Your task to perform on an android device: all mails in gmail Image 0: 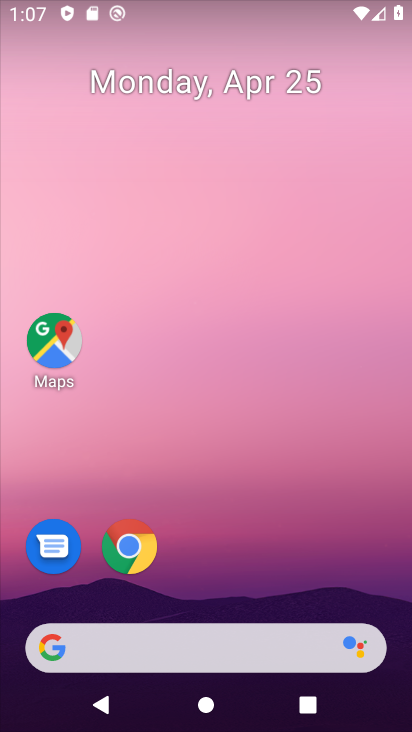
Step 0: drag from (232, 600) to (195, 5)
Your task to perform on an android device: all mails in gmail Image 1: 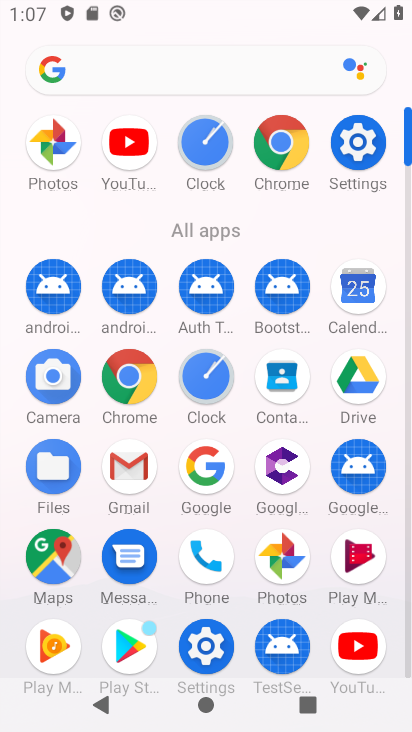
Step 1: click (119, 474)
Your task to perform on an android device: all mails in gmail Image 2: 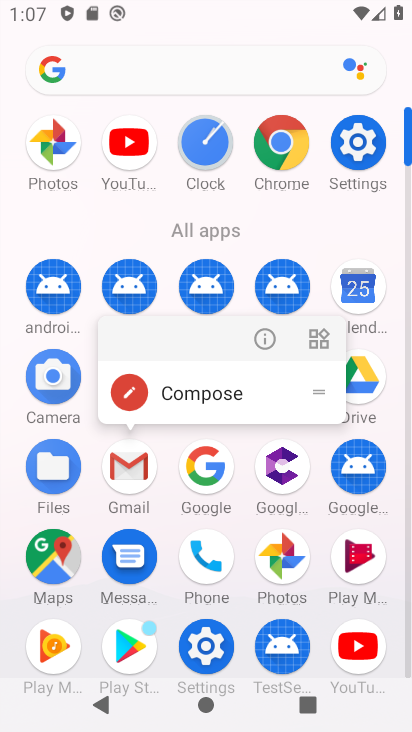
Step 2: click (137, 461)
Your task to perform on an android device: all mails in gmail Image 3: 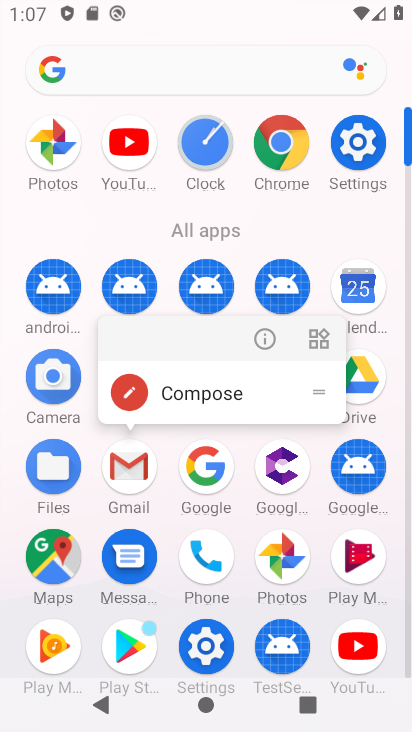
Step 3: click (125, 493)
Your task to perform on an android device: all mails in gmail Image 4: 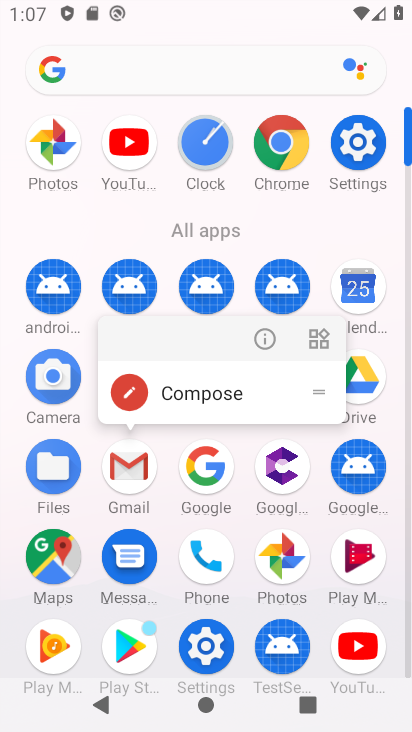
Step 4: click (126, 484)
Your task to perform on an android device: all mails in gmail Image 5: 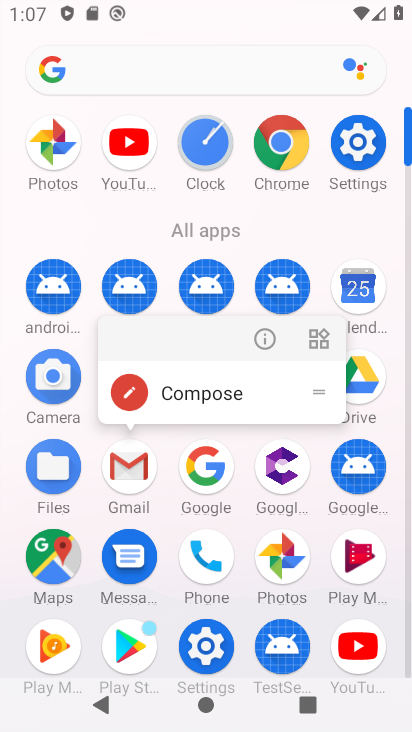
Step 5: click (129, 475)
Your task to perform on an android device: all mails in gmail Image 6: 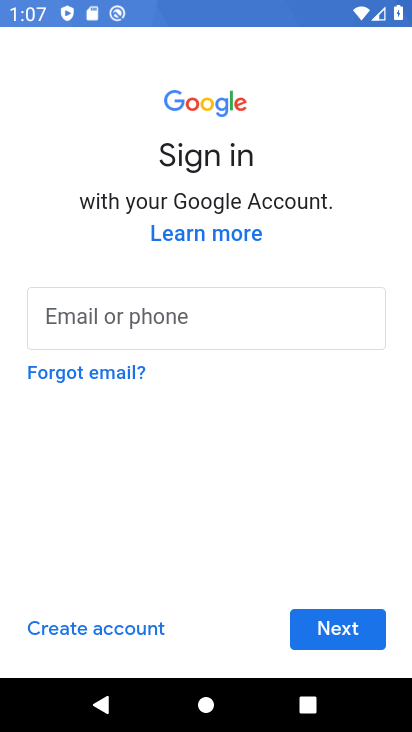
Step 6: click (310, 623)
Your task to perform on an android device: all mails in gmail Image 7: 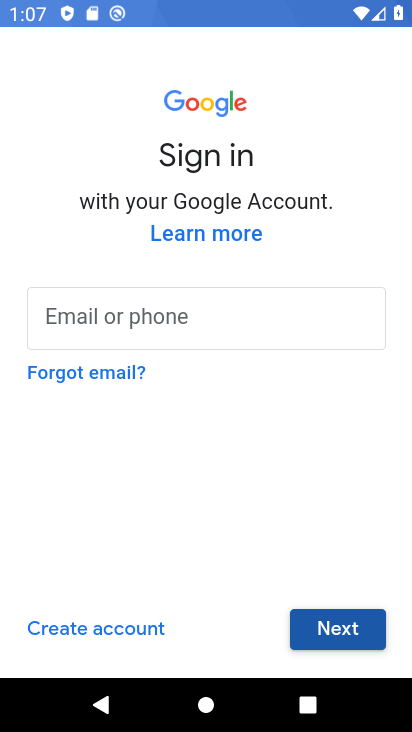
Step 7: click (103, 704)
Your task to perform on an android device: all mails in gmail Image 8: 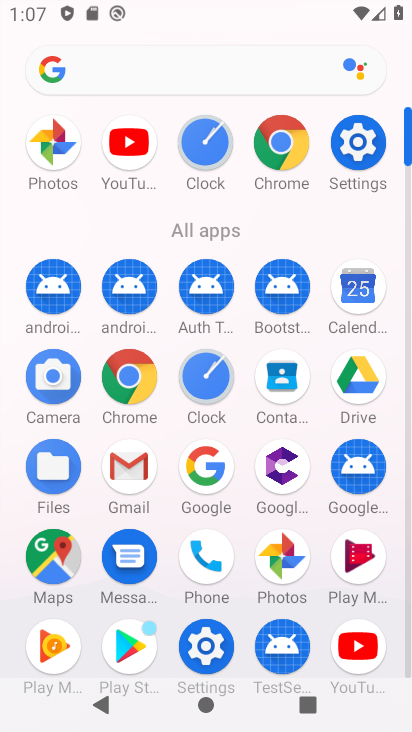
Step 8: click (145, 471)
Your task to perform on an android device: all mails in gmail Image 9: 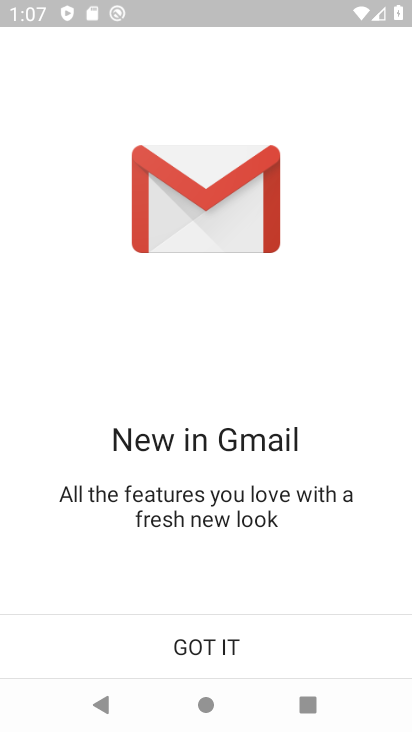
Step 9: click (167, 649)
Your task to perform on an android device: all mails in gmail Image 10: 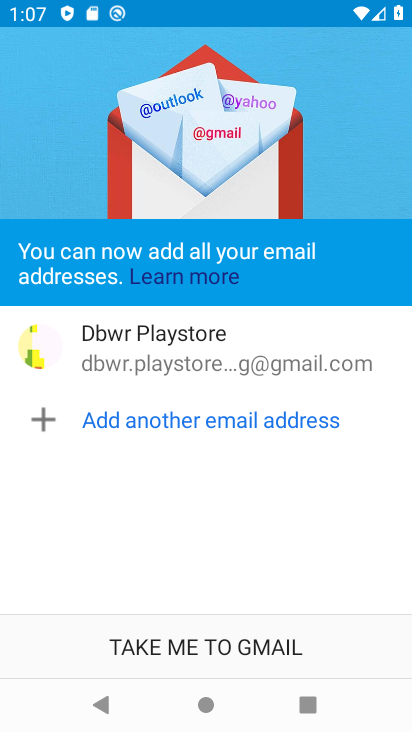
Step 10: click (166, 378)
Your task to perform on an android device: all mails in gmail Image 11: 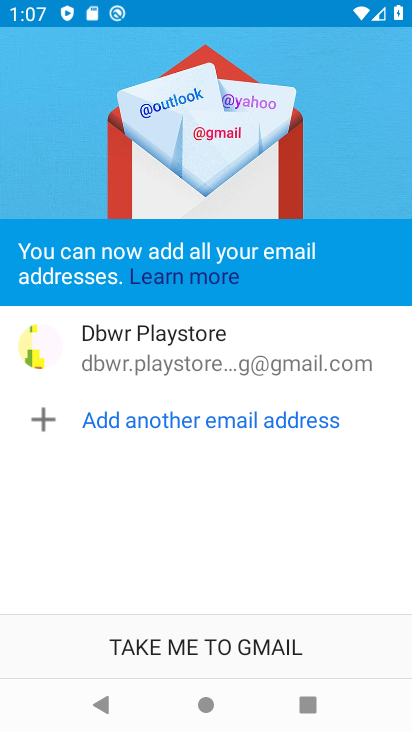
Step 11: click (172, 634)
Your task to perform on an android device: all mails in gmail Image 12: 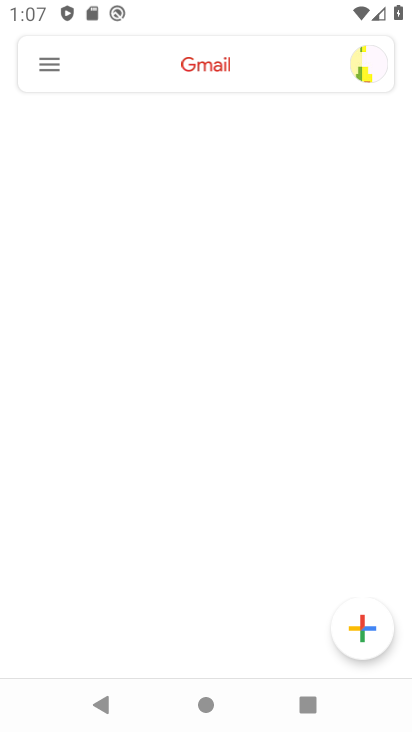
Step 12: click (44, 56)
Your task to perform on an android device: all mails in gmail Image 13: 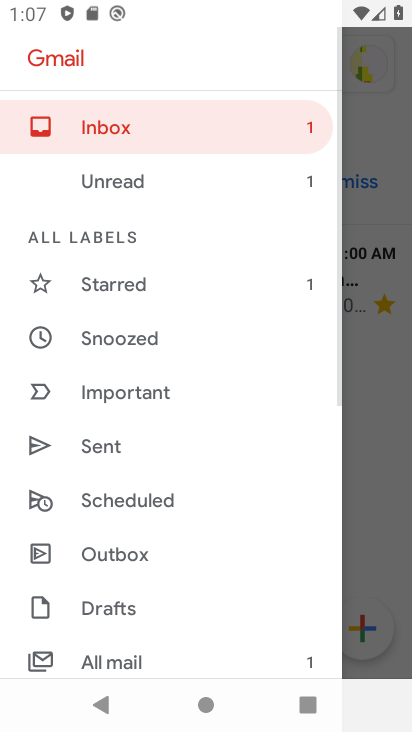
Step 13: click (126, 650)
Your task to perform on an android device: all mails in gmail Image 14: 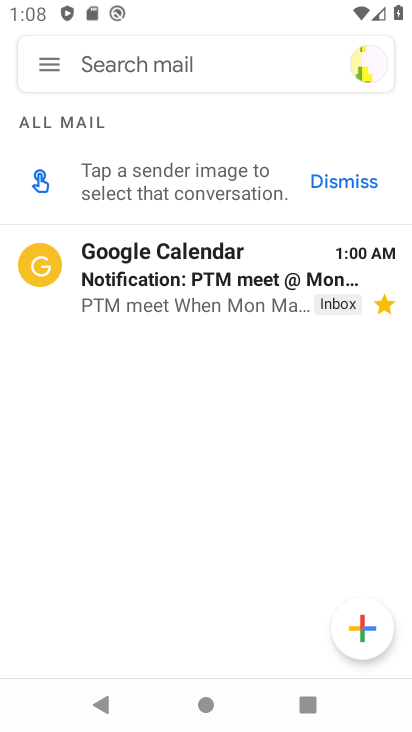
Step 14: task complete